Your task to perform on an android device: Go to location settings Image 0: 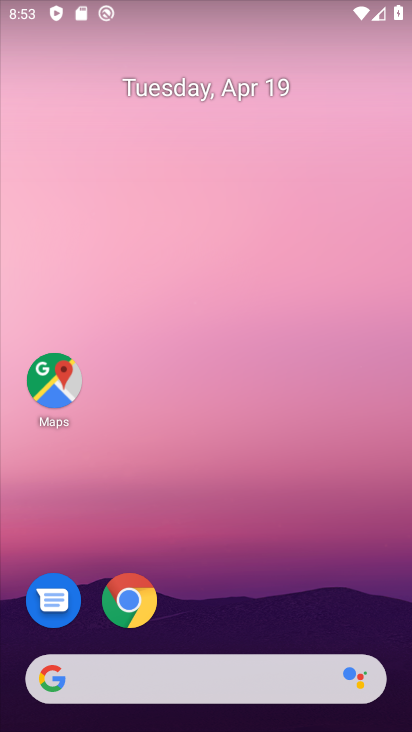
Step 0: drag from (210, 642) to (307, 5)
Your task to perform on an android device: Go to location settings Image 1: 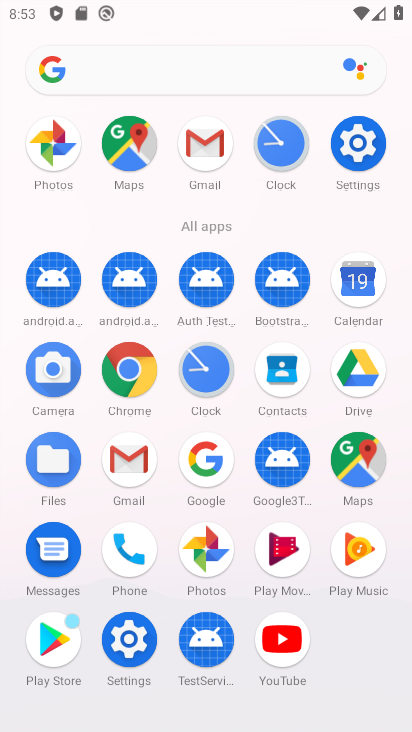
Step 1: click (358, 128)
Your task to perform on an android device: Go to location settings Image 2: 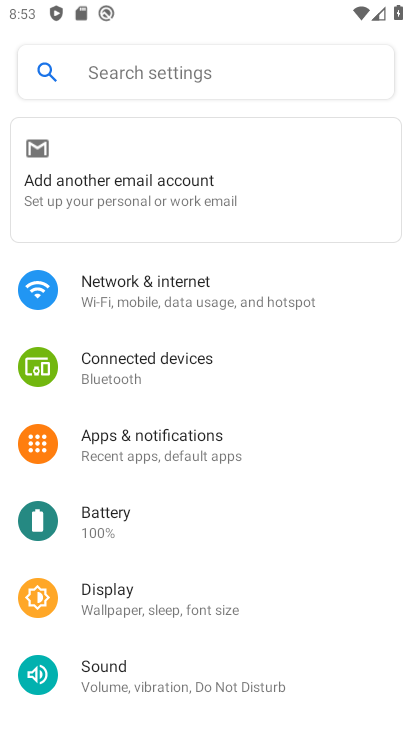
Step 2: drag from (160, 599) to (218, 176)
Your task to perform on an android device: Go to location settings Image 3: 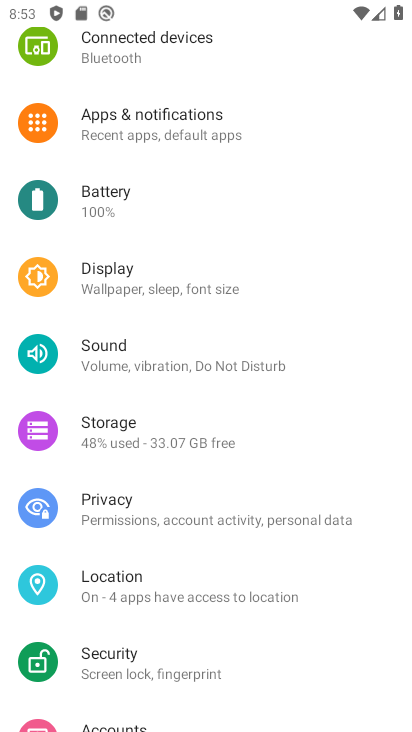
Step 3: click (177, 581)
Your task to perform on an android device: Go to location settings Image 4: 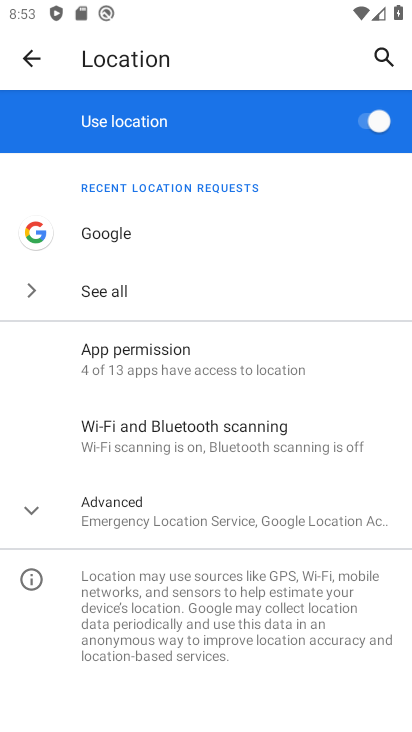
Step 4: task complete